Your task to perform on an android device: Open calendar and show me the third week of next month Image 0: 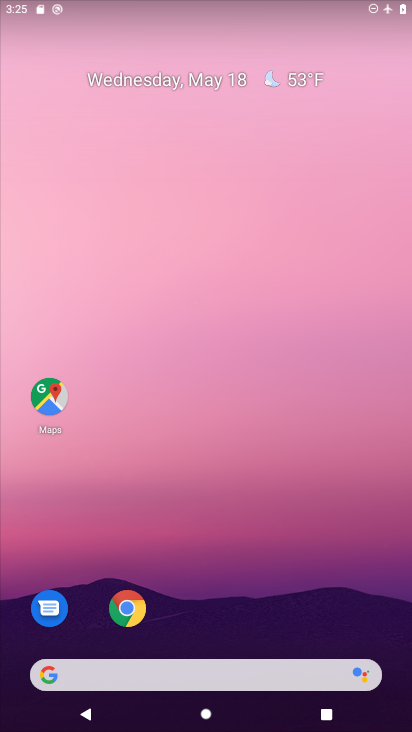
Step 0: drag from (206, 653) to (208, 338)
Your task to perform on an android device: Open calendar and show me the third week of next month Image 1: 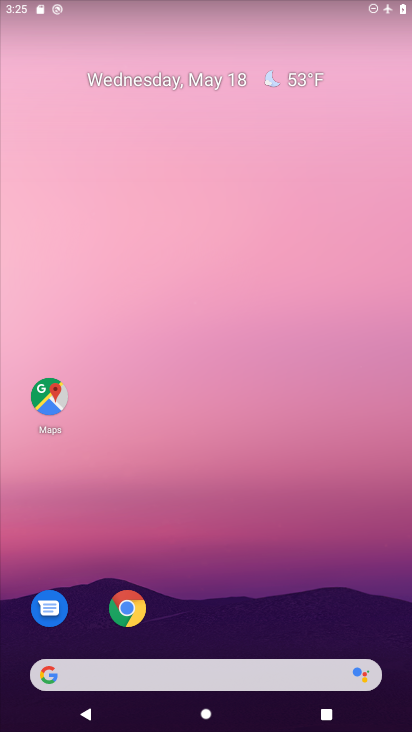
Step 1: drag from (257, 635) to (234, 135)
Your task to perform on an android device: Open calendar and show me the third week of next month Image 2: 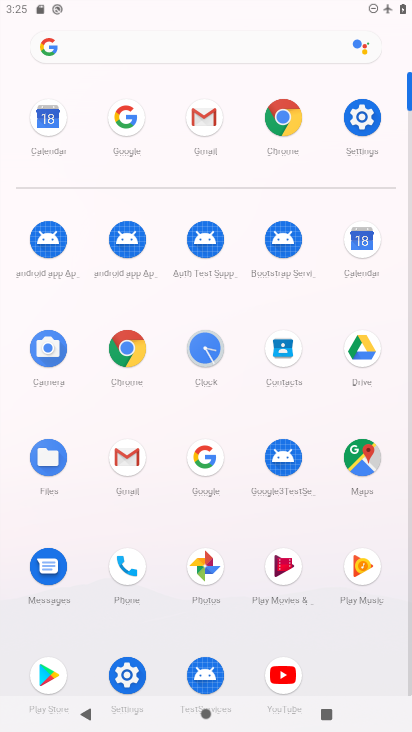
Step 2: click (35, 124)
Your task to perform on an android device: Open calendar and show me the third week of next month Image 3: 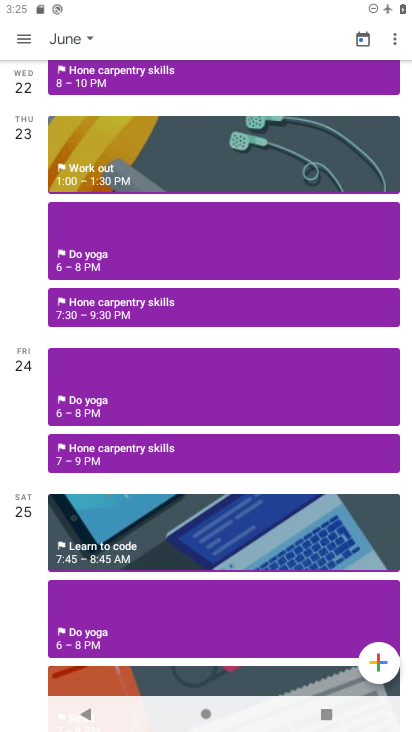
Step 3: click (79, 35)
Your task to perform on an android device: Open calendar and show me the third week of next month Image 4: 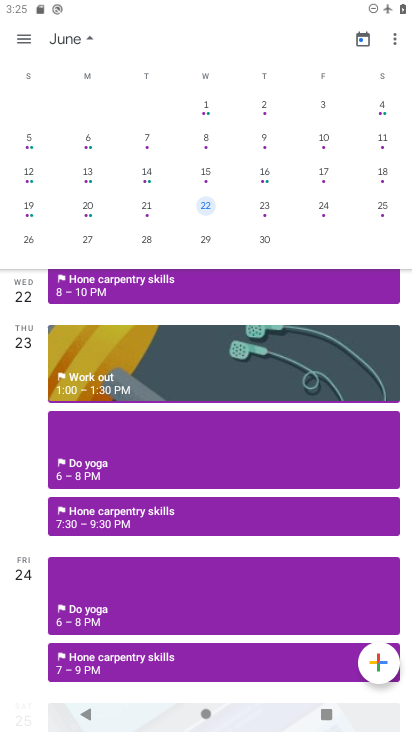
Step 4: click (24, 175)
Your task to perform on an android device: Open calendar and show me the third week of next month Image 5: 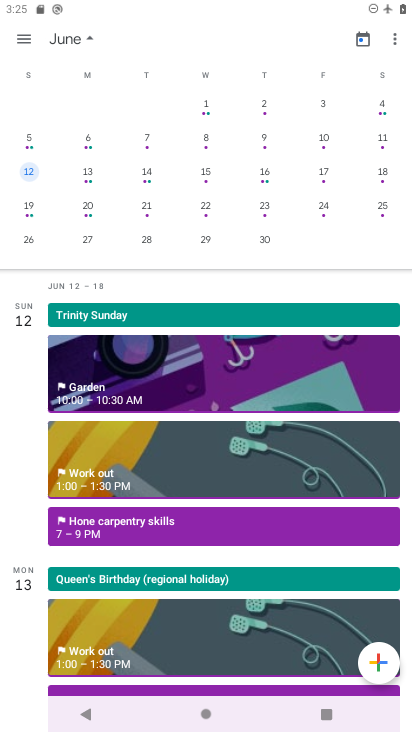
Step 5: task complete